Your task to perform on an android device: How do I get to the nearest Home Depot? Image 0: 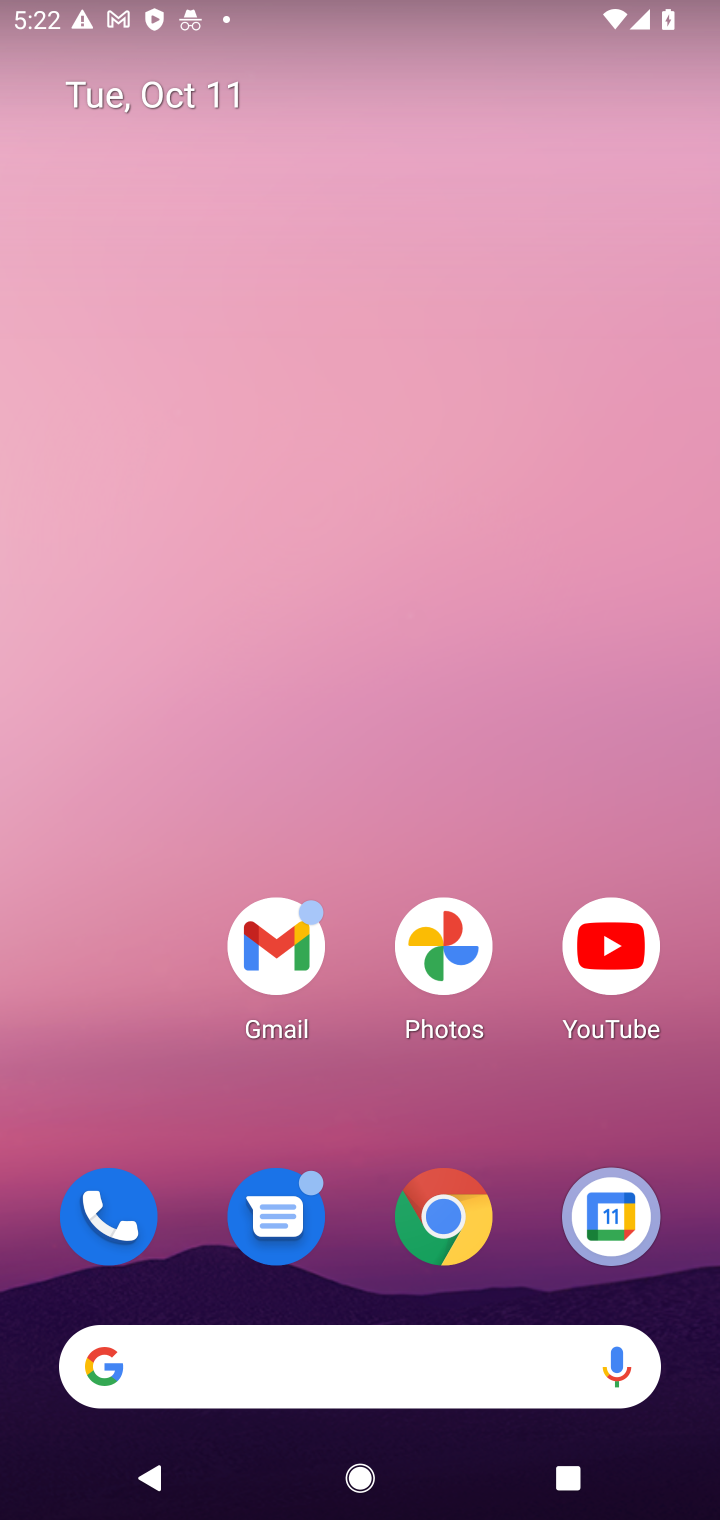
Step 0: drag from (352, 1348) to (378, 316)
Your task to perform on an android device: How do I get to the nearest Home Depot? Image 1: 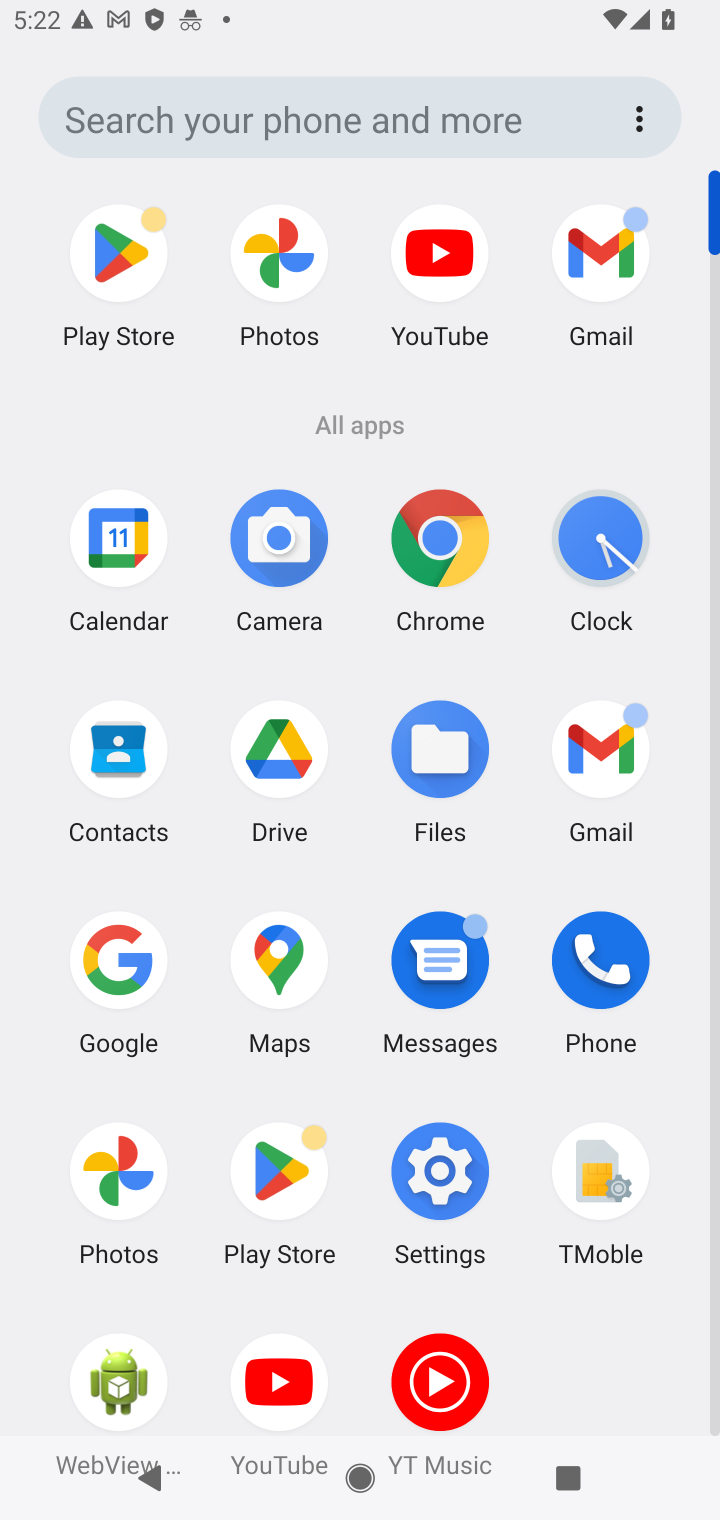
Step 1: click (447, 545)
Your task to perform on an android device: How do I get to the nearest Home Depot? Image 2: 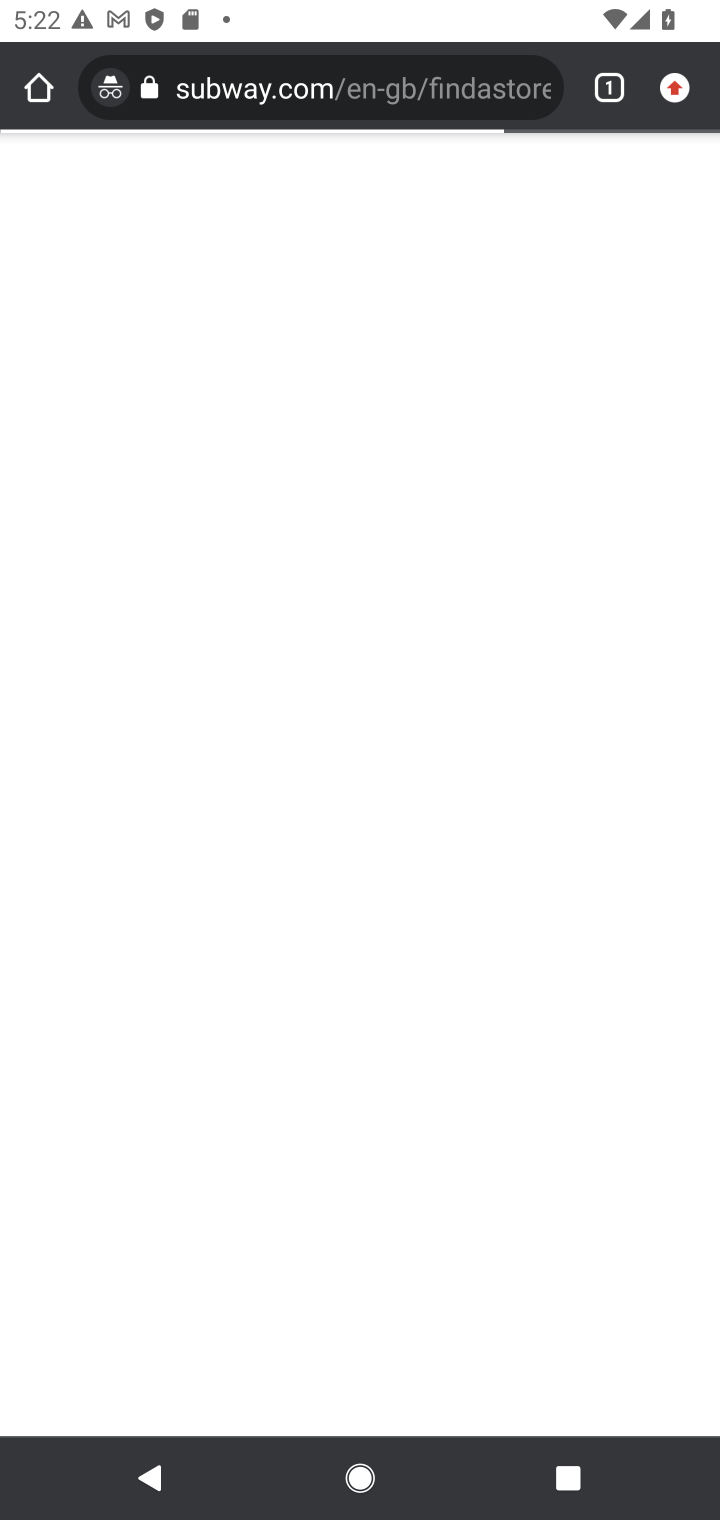
Step 2: click (412, 93)
Your task to perform on an android device: How do I get to the nearest Home Depot? Image 3: 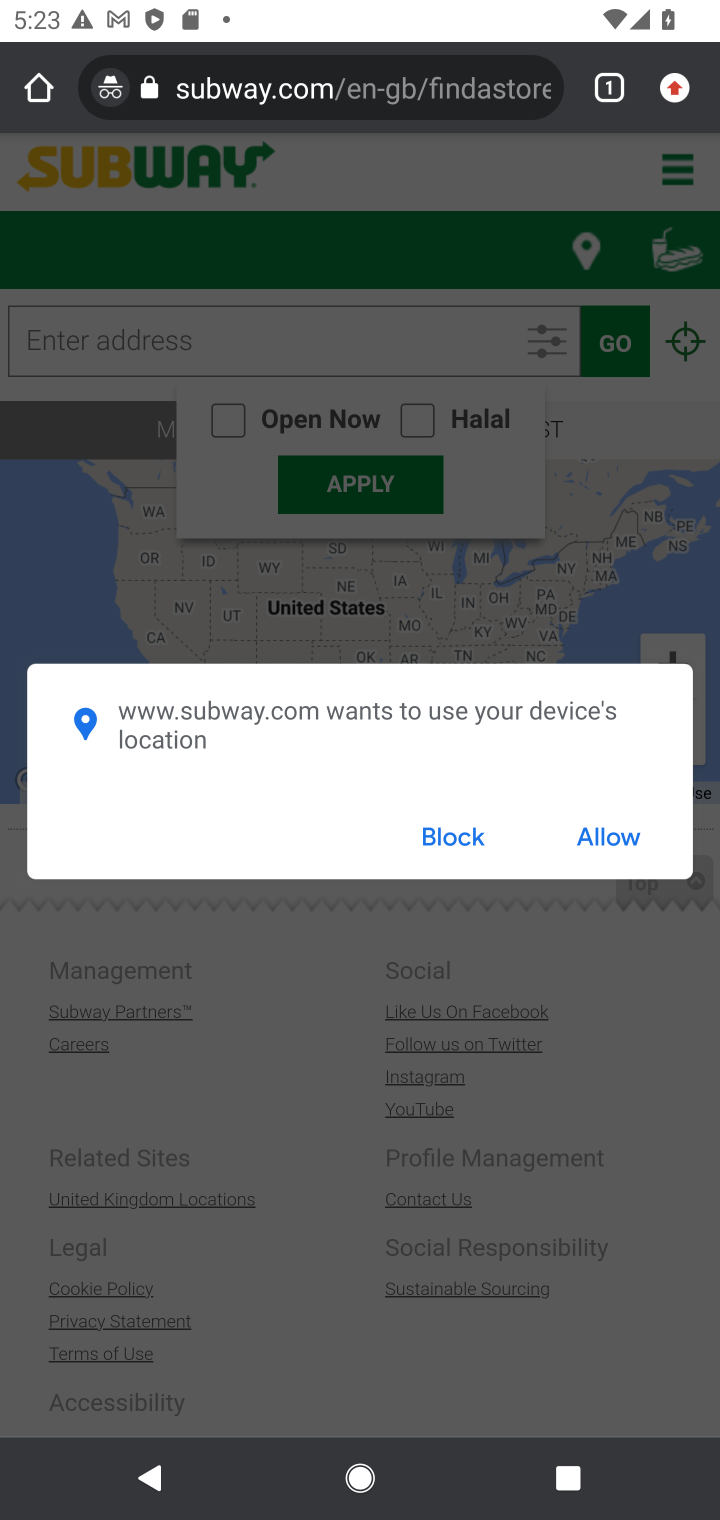
Step 3: type "How do i get to the nearest Home Depot?"
Your task to perform on an android device: How do I get to the nearest Home Depot? Image 4: 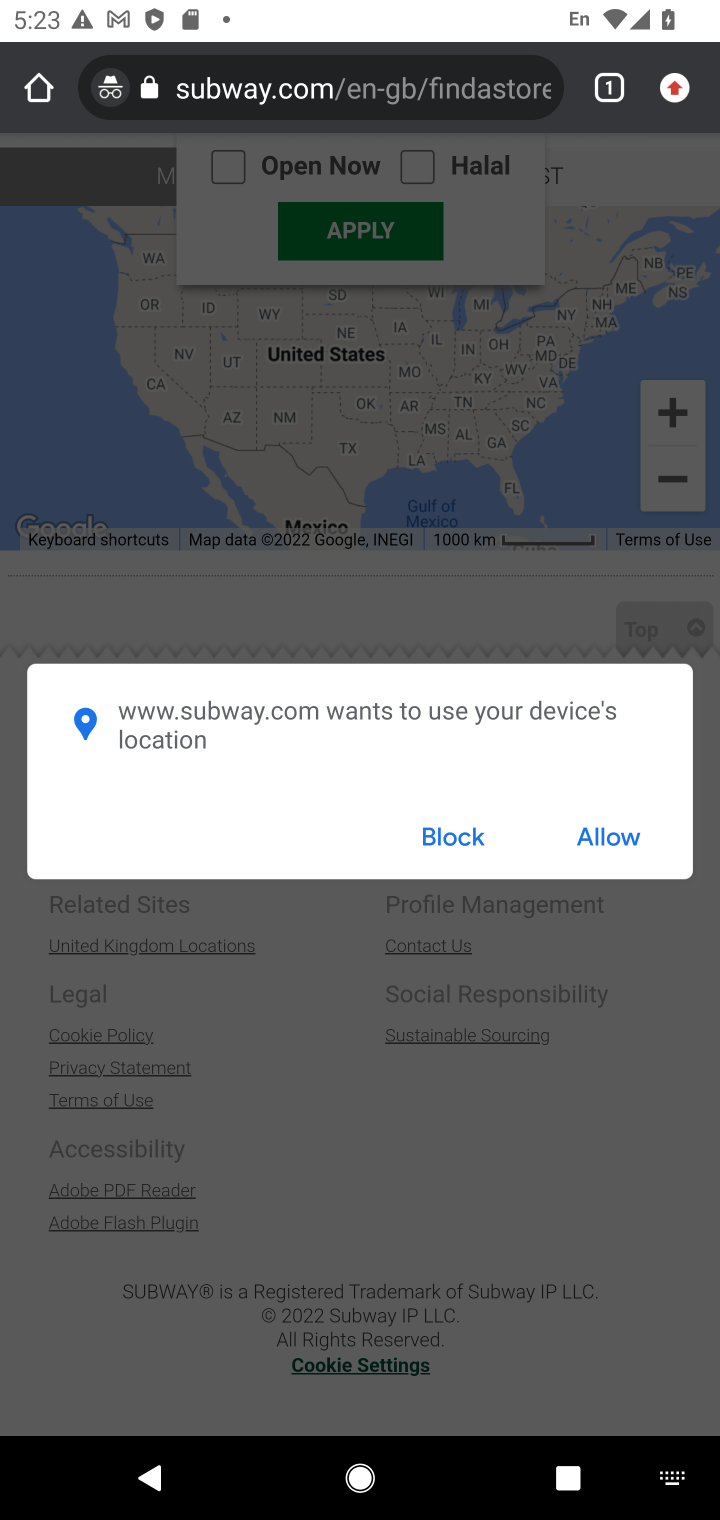
Step 4: press home button
Your task to perform on an android device: How do I get to the nearest Home Depot? Image 5: 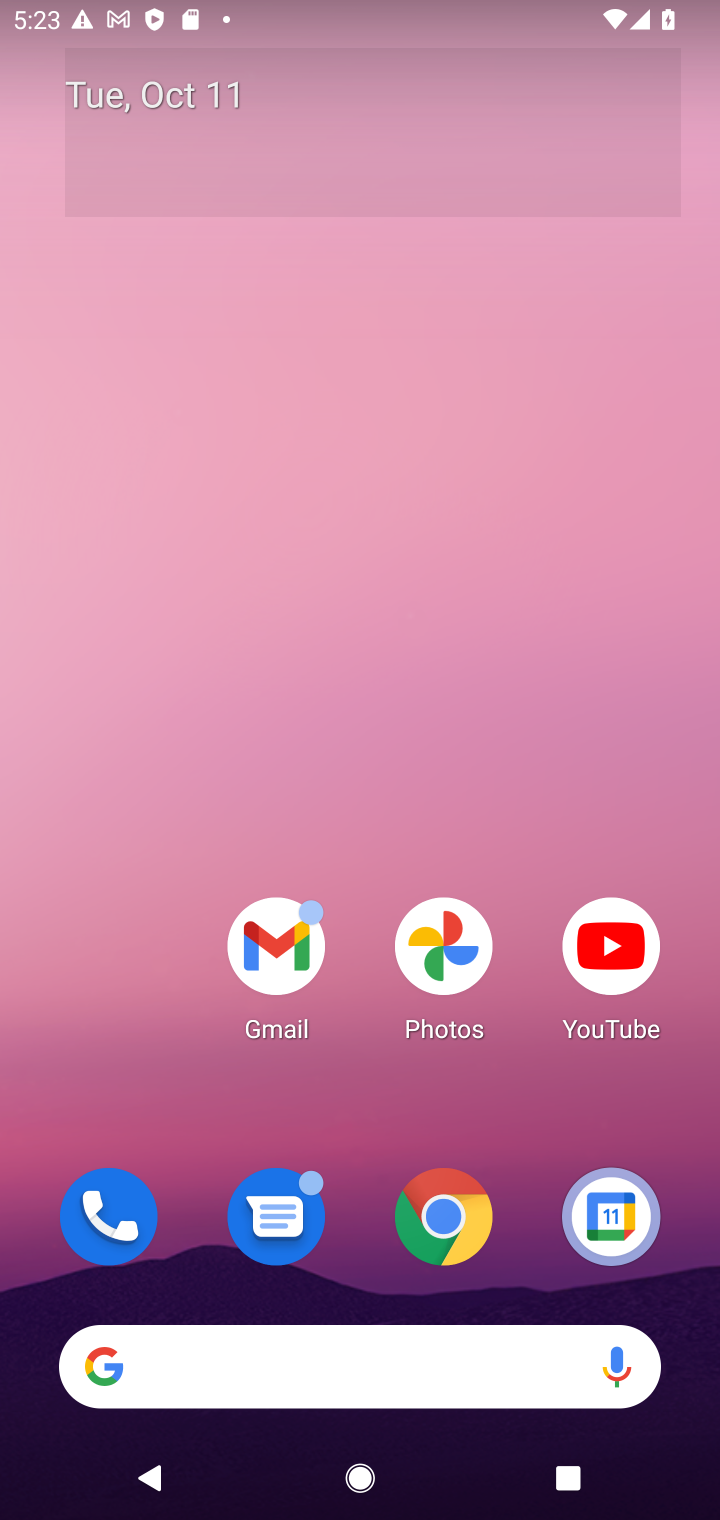
Step 5: click (442, 1214)
Your task to perform on an android device: How do I get to the nearest Home Depot? Image 6: 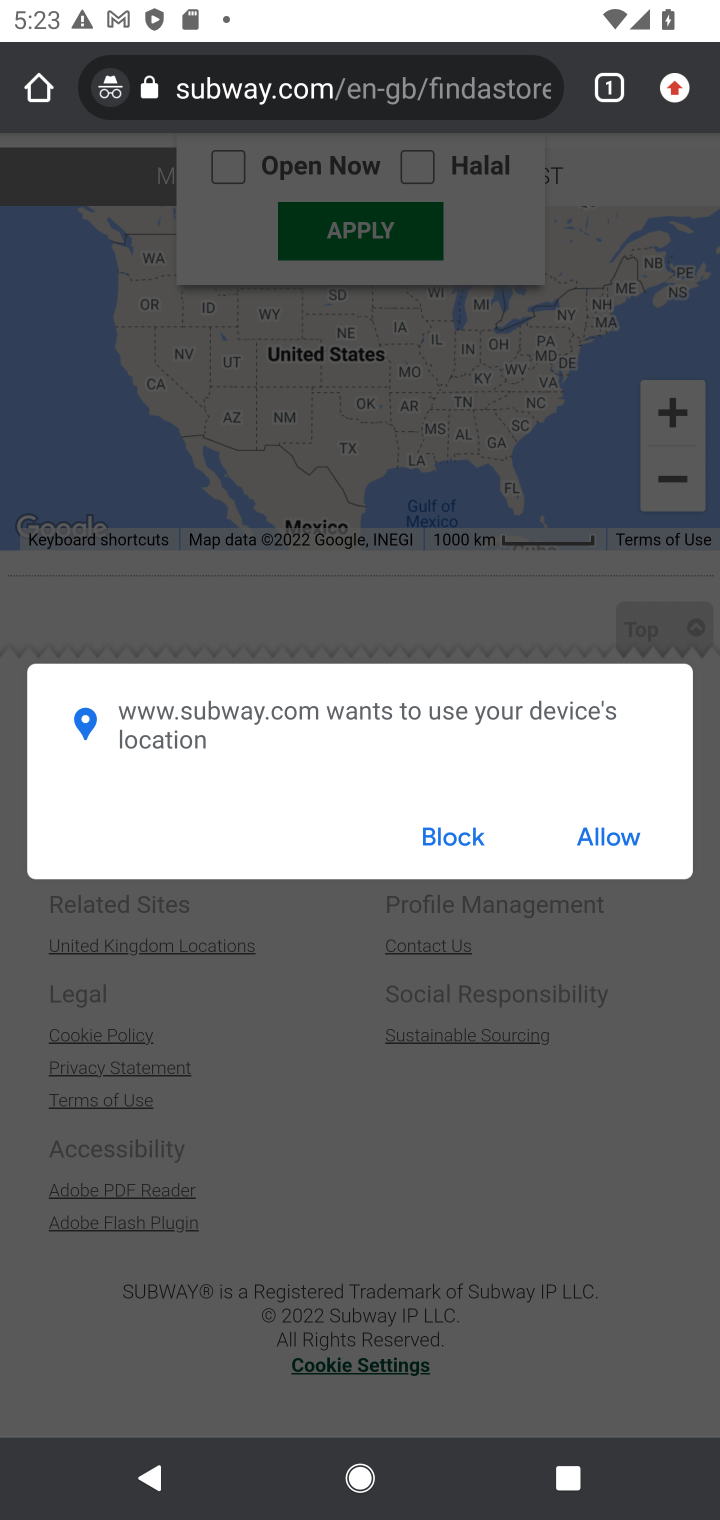
Step 6: click (611, 822)
Your task to perform on an android device: How do I get to the nearest Home Depot? Image 7: 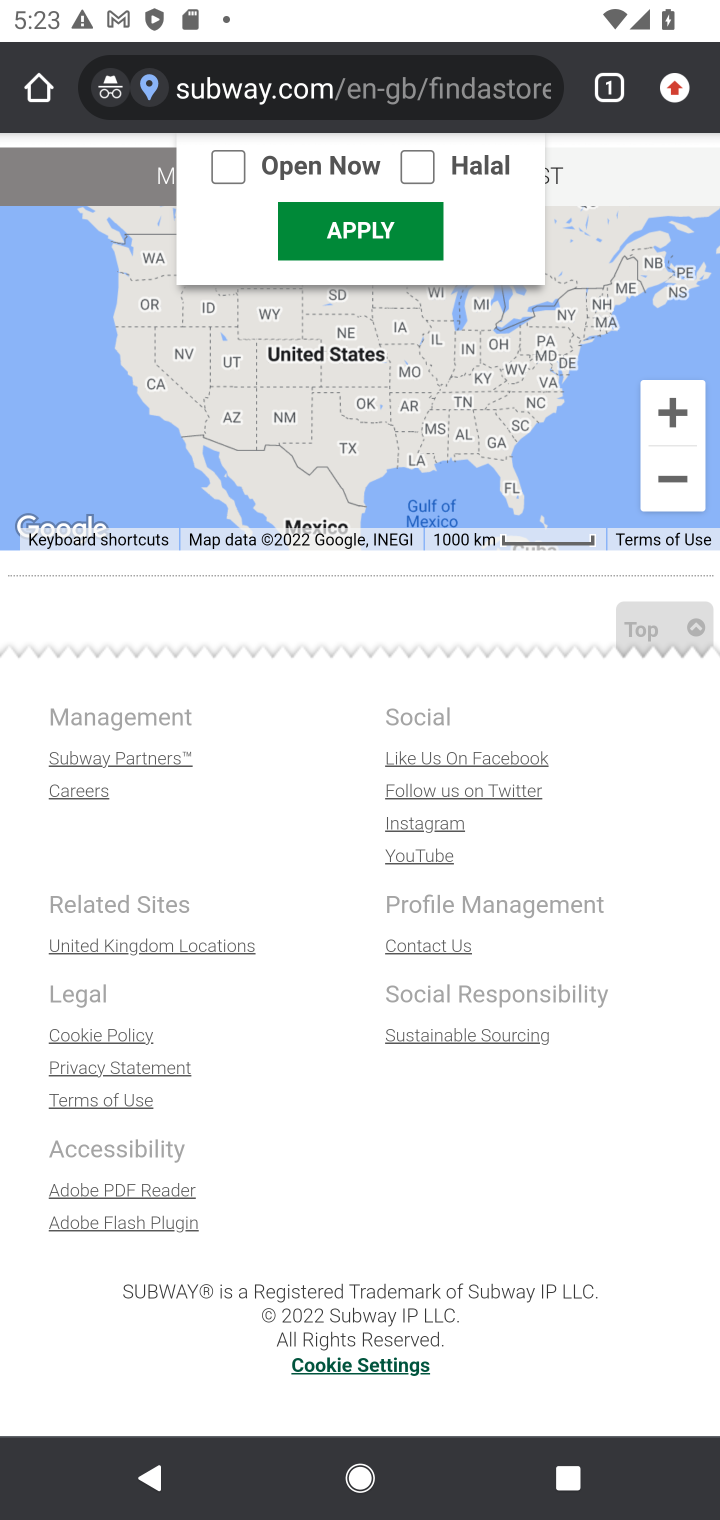
Step 7: click (462, 73)
Your task to perform on an android device: How do I get to the nearest Home Depot? Image 8: 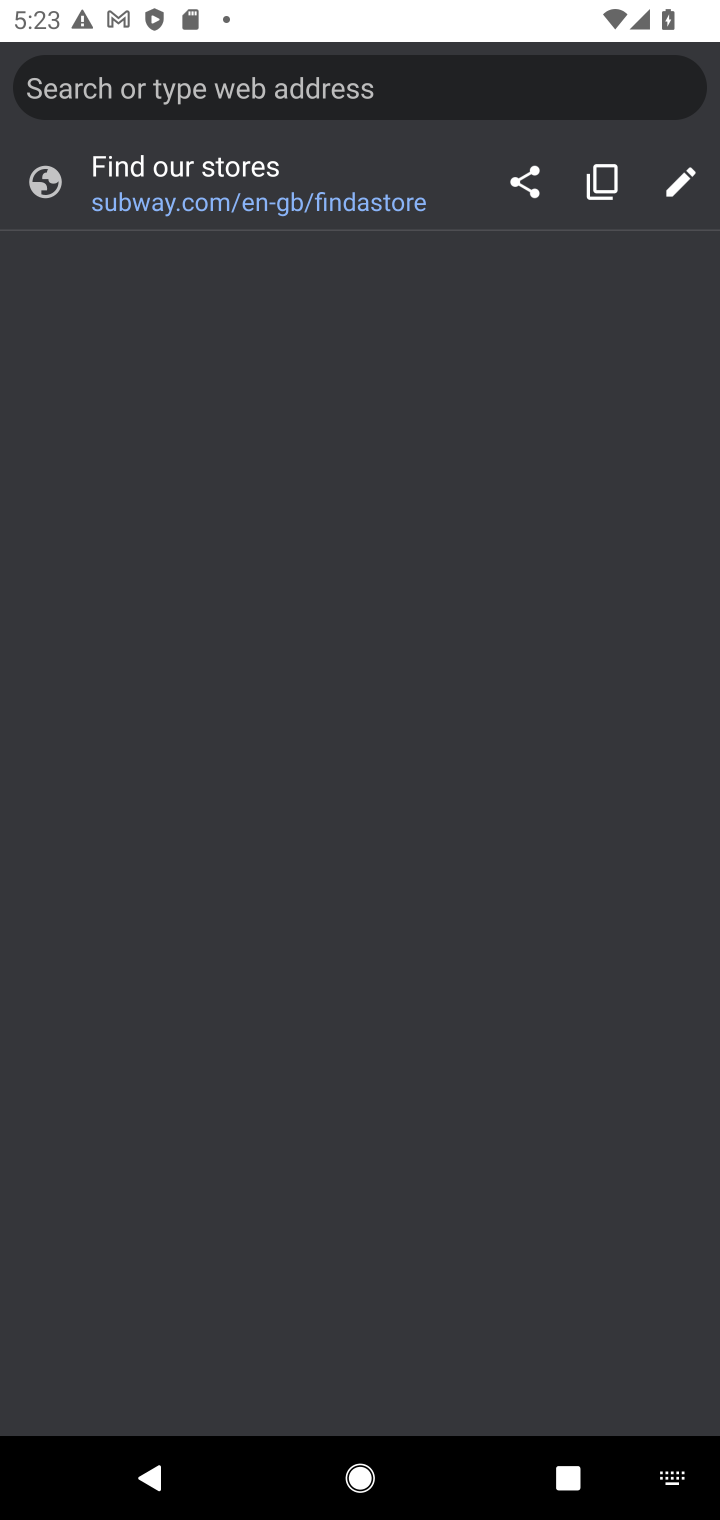
Step 8: type "How do I get to the nearest Home Depot?"
Your task to perform on an android device: How do I get to the nearest Home Depot? Image 9: 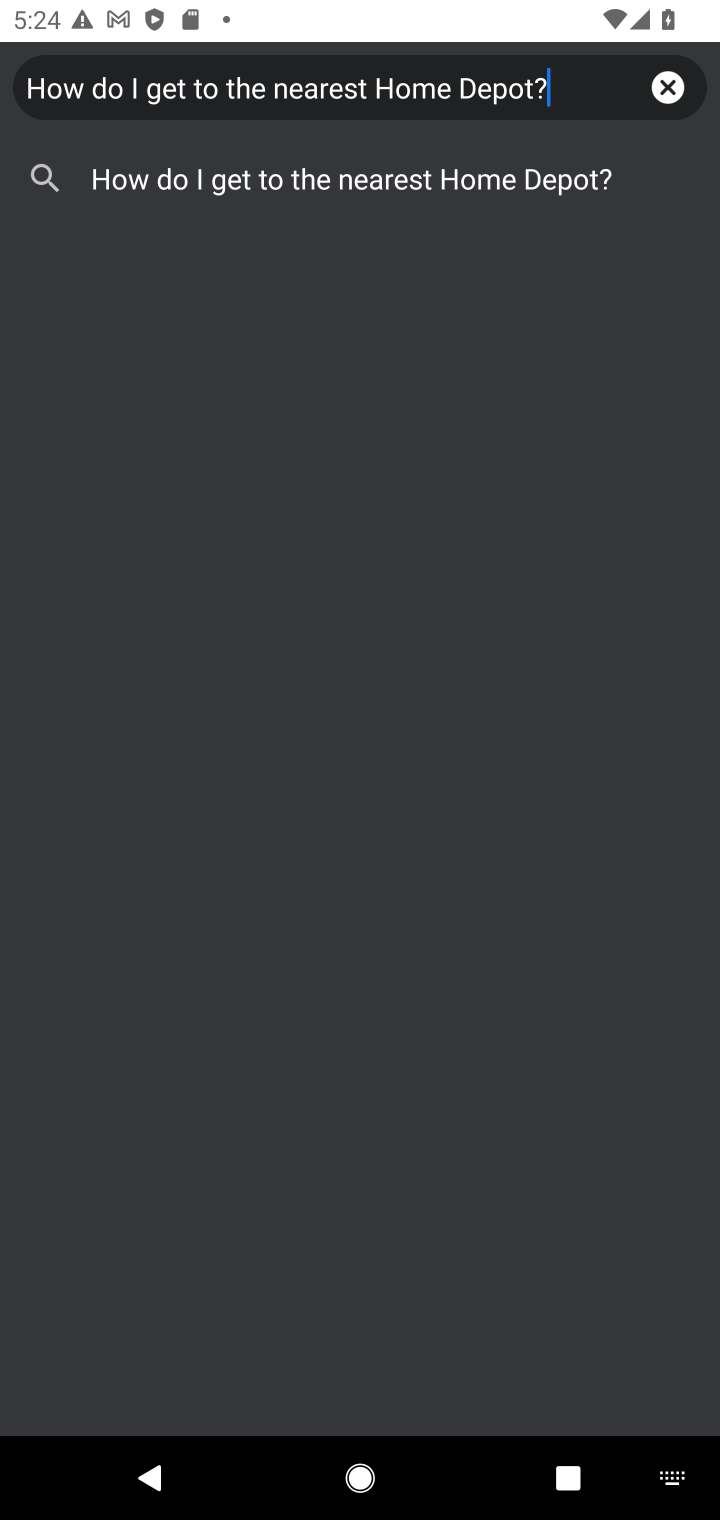
Step 9: click (289, 187)
Your task to perform on an android device: How do I get to the nearest Home Depot? Image 10: 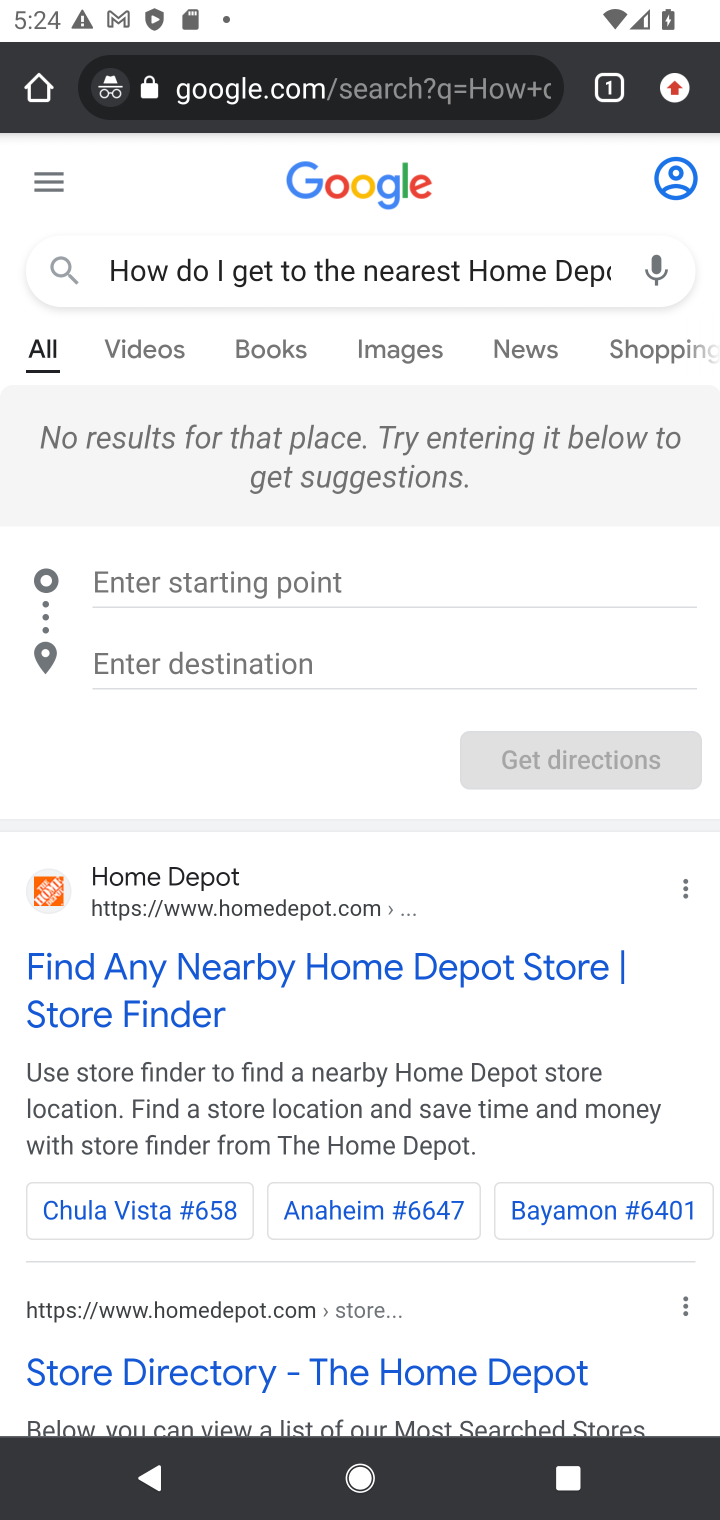
Step 10: click (318, 942)
Your task to perform on an android device: How do I get to the nearest Home Depot? Image 11: 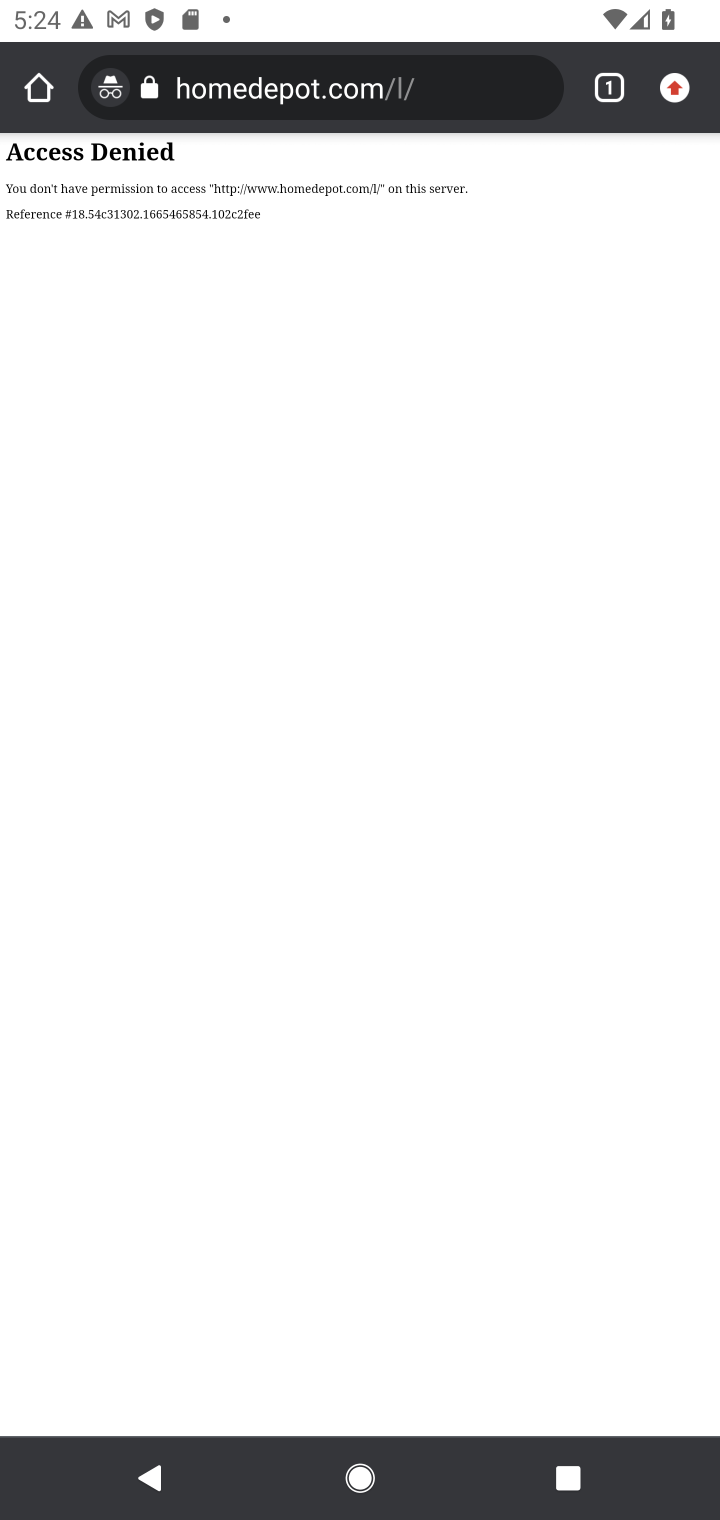
Step 11: task complete